Your task to perform on an android device: check storage Image 0: 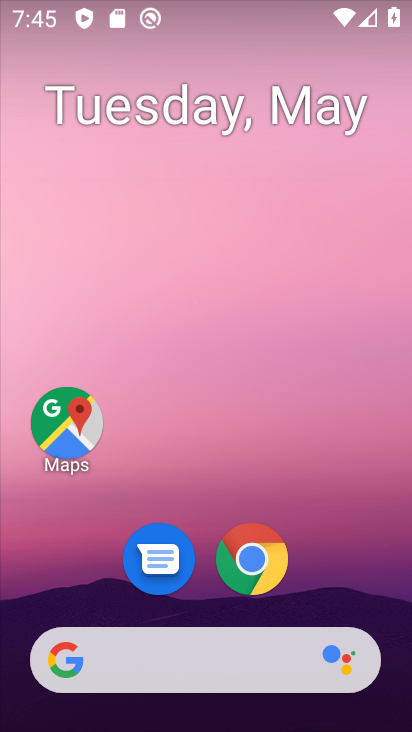
Step 0: drag from (392, 637) to (167, 13)
Your task to perform on an android device: check storage Image 1: 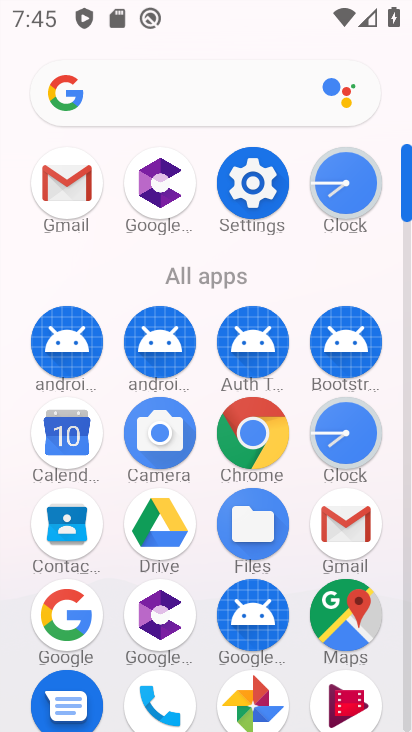
Step 1: click (253, 184)
Your task to perform on an android device: check storage Image 2: 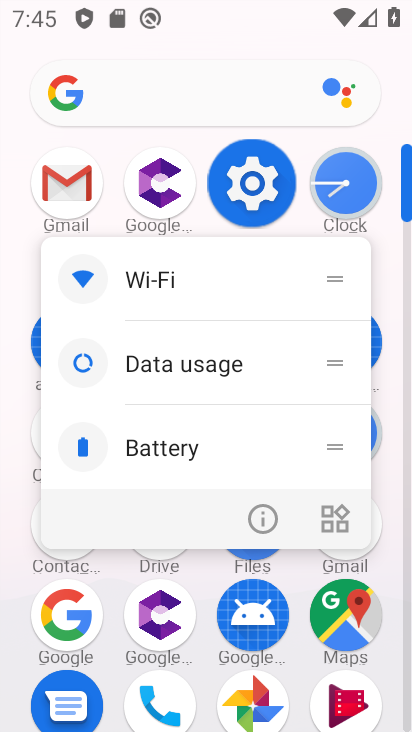
Step 2: click (252, 169)
Your task to perform on an android device: check storage Image 3: 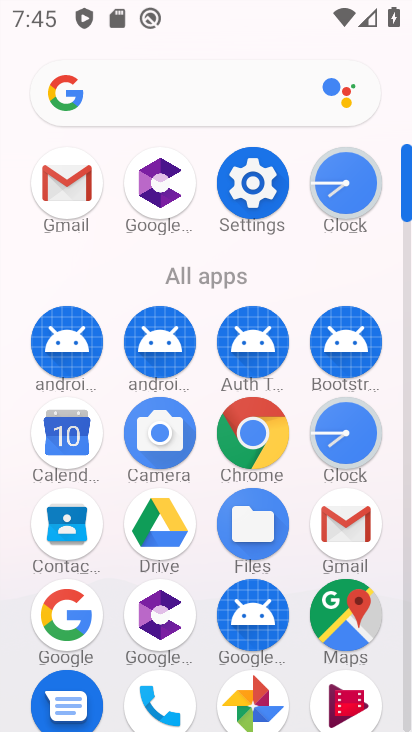
Step 3: click (247, 181)
Your task to perform on an android device: check storage Image 4: 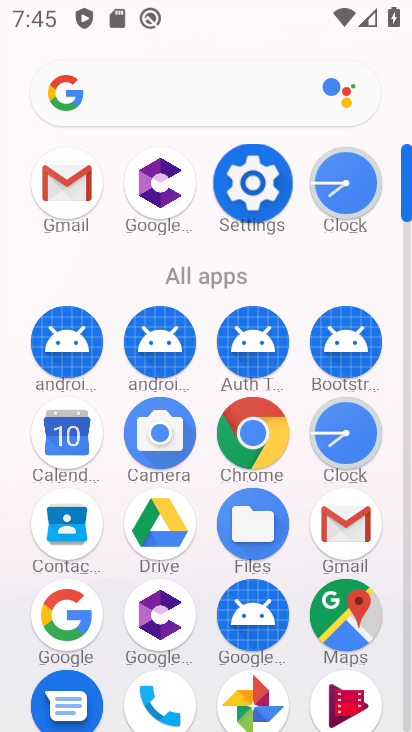
Step 4: click (247, 181)
Your task to perform on an android device: check storage Image 5: 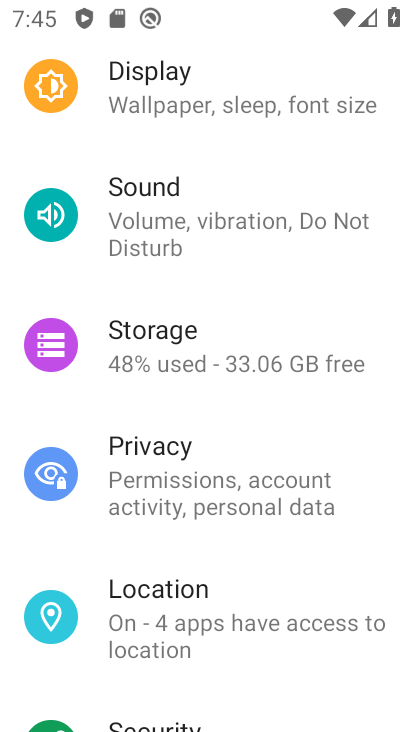
Step 5: click (247, 184)
Your task to perform on an android device: check storage Image 6: 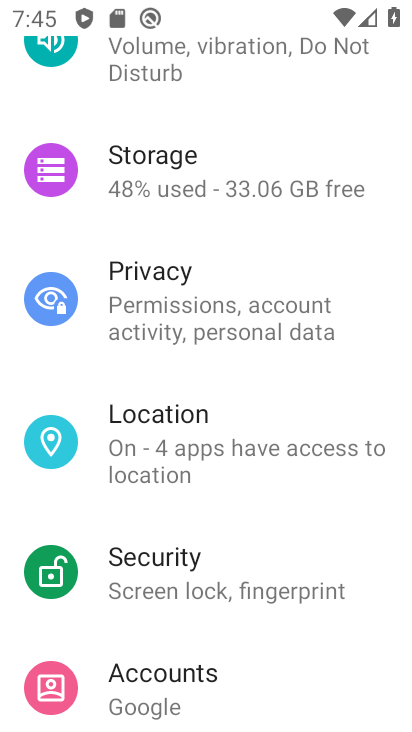
Step 6: click (247, 184)
Your task to perform on an android device: check storage Image 7: 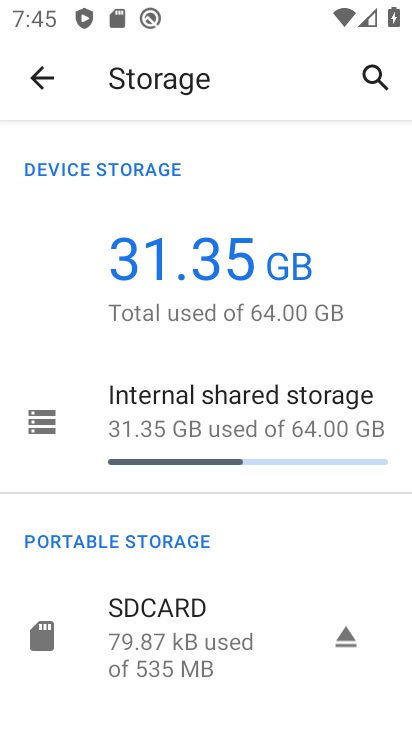
Step 7: click (41, 82)
Your task to perform on an android device: check storage Image 8: 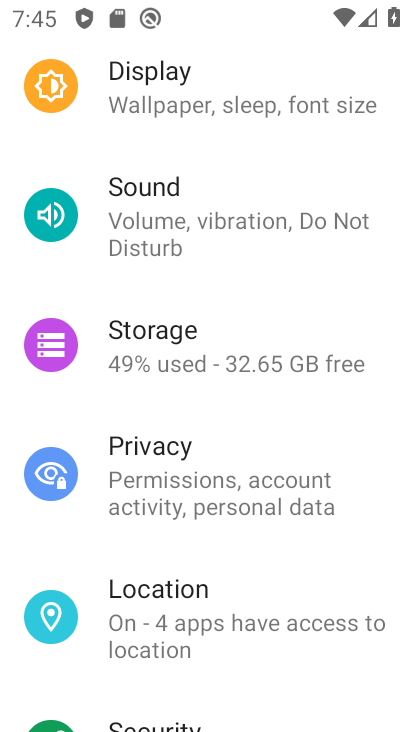
Step 8: click (166, 360)
Your task to perform on an android device: check storage Image 9: 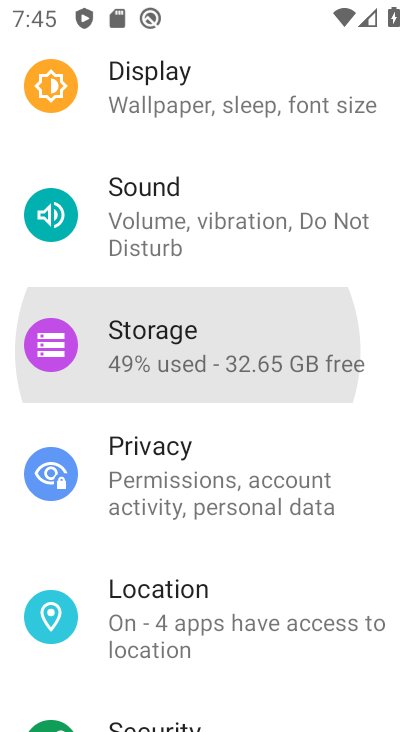
Step 9: click (166, 360)
Your task to perform on an android device: check storage Image 10: 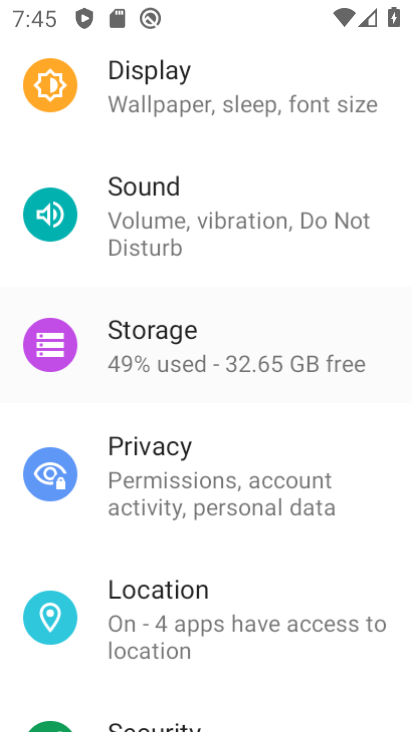
Step 10: click (165, 358)
Your task to perform on an android device: check storage Image 11: 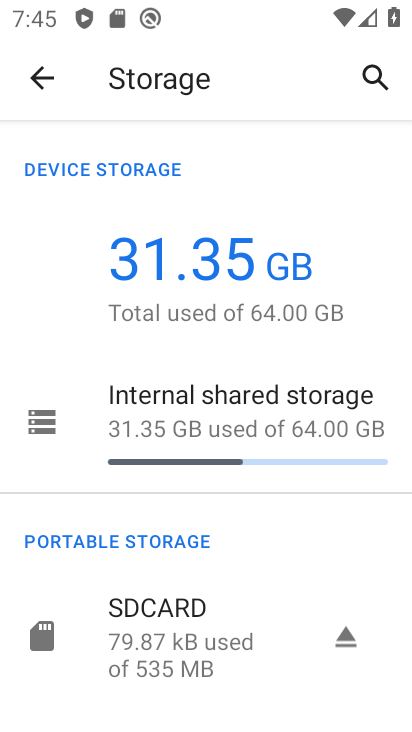
Step 11: click (165, 355)
Your task to perform on an android device: check storage Image 12: 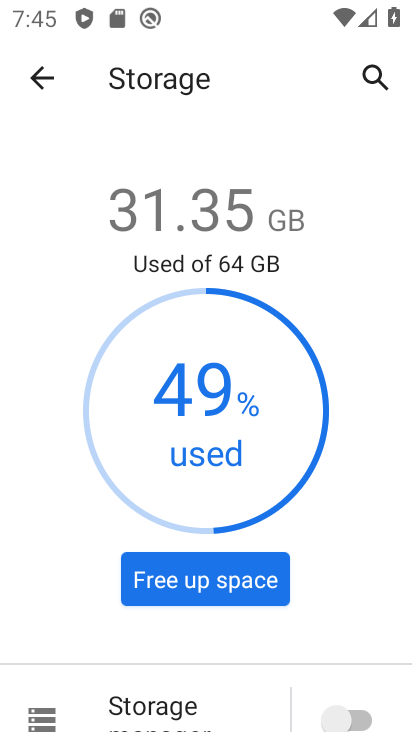
Step 12: task complete